Your task to perform on an android device: open app "Firefox Browser" (install if not already installed) and enter user name: "hashed@outlook.com" and password: "congestive" Image 0: 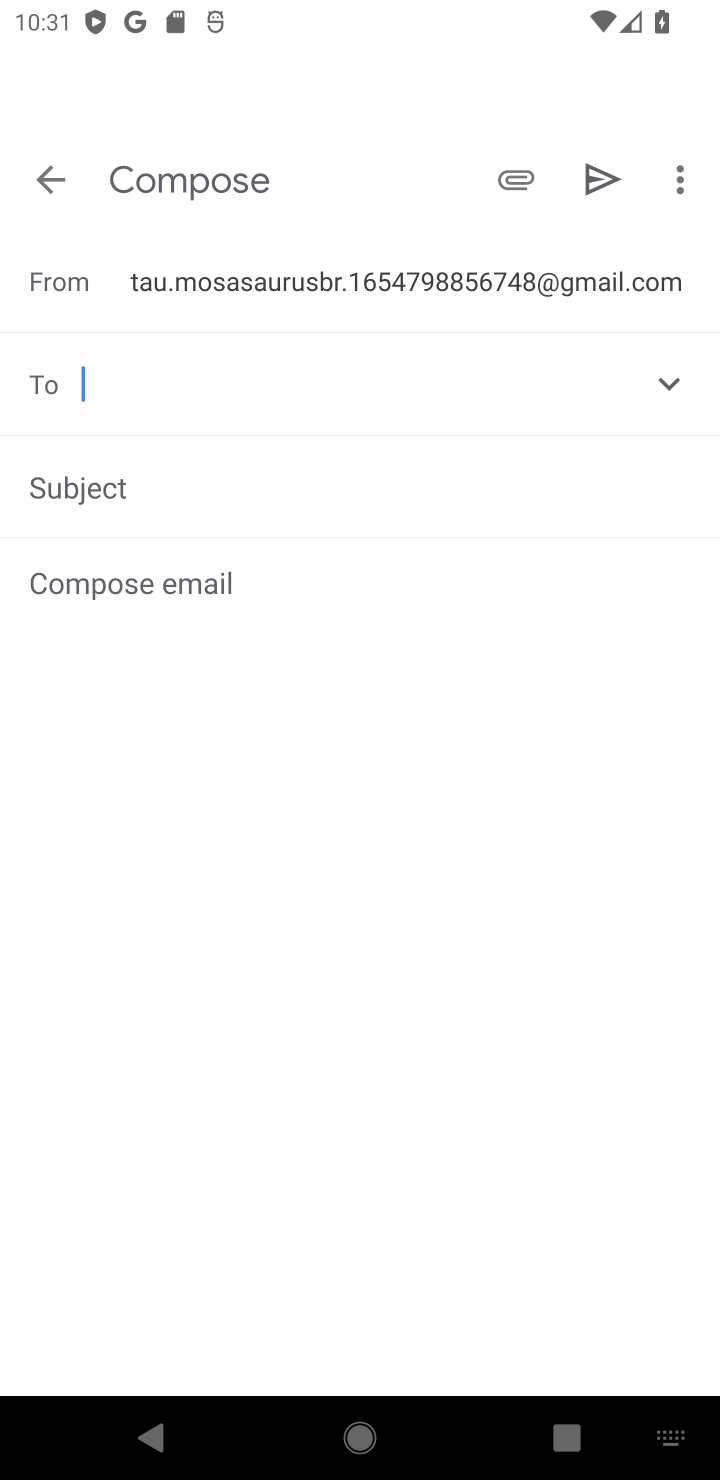
Step 0: press back button
Your task to perform on an android device: open app "Firefox Browser" (install if not already installed) and enter user name: "hashed@outlook.com" and password: "congestive" Image 1: 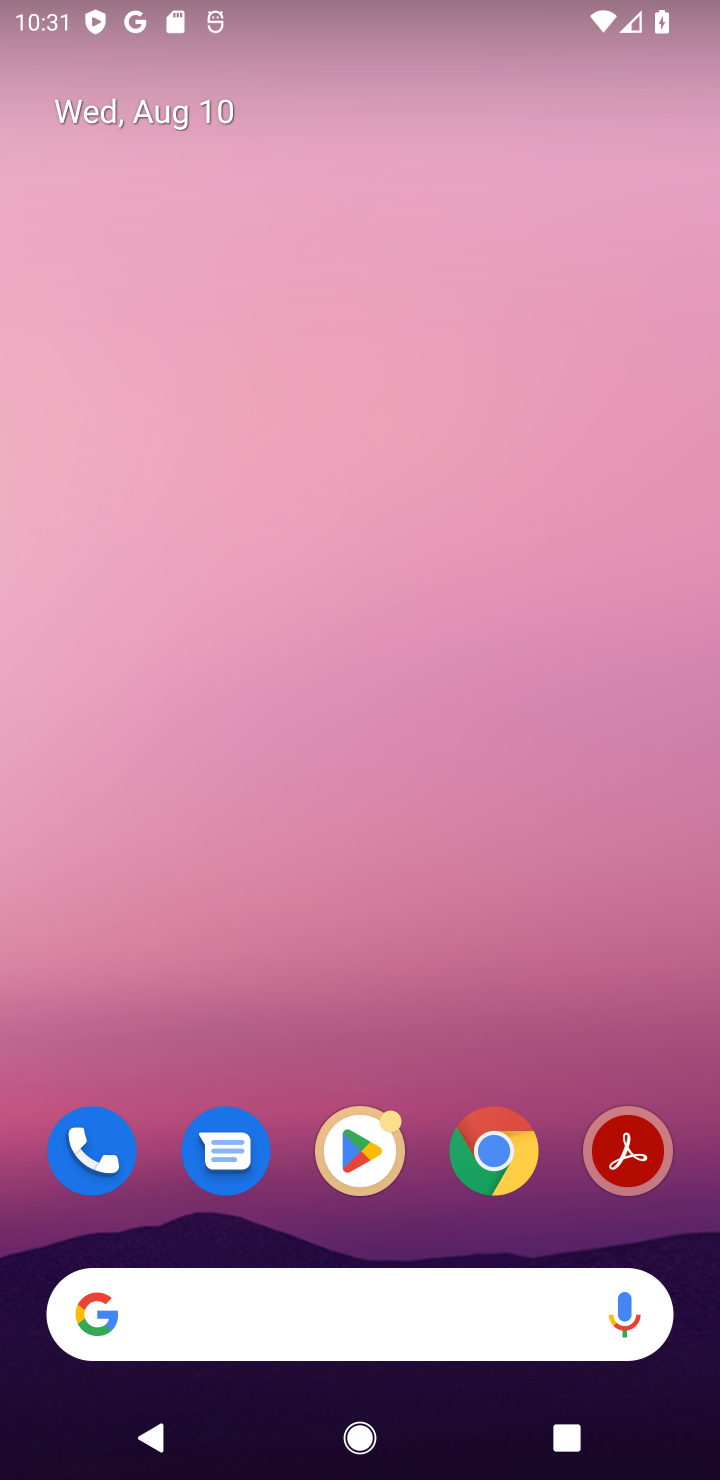
Step 1: press back button
Your task to perform on an android device: open app "Firefox Browser" (install if not already installed) and enter user name: "hashed@outlook.com" and password: "congestive" Image 2: 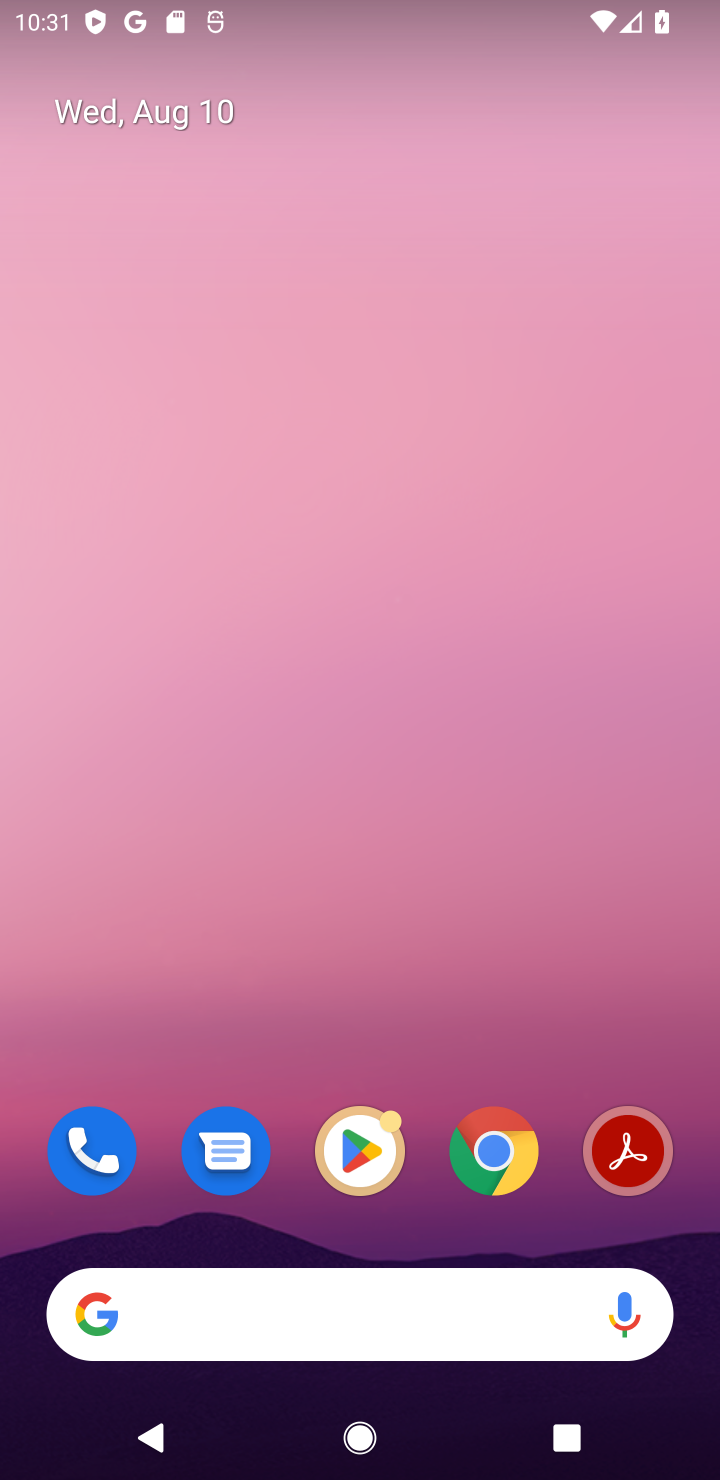
Step 2: click (359, 1148)
Your task to perform on an android device: open app "Firefox Browser" (install if not already installed) and enter user name: "hashed@outlook.com" and password: "congestive" Image 3: 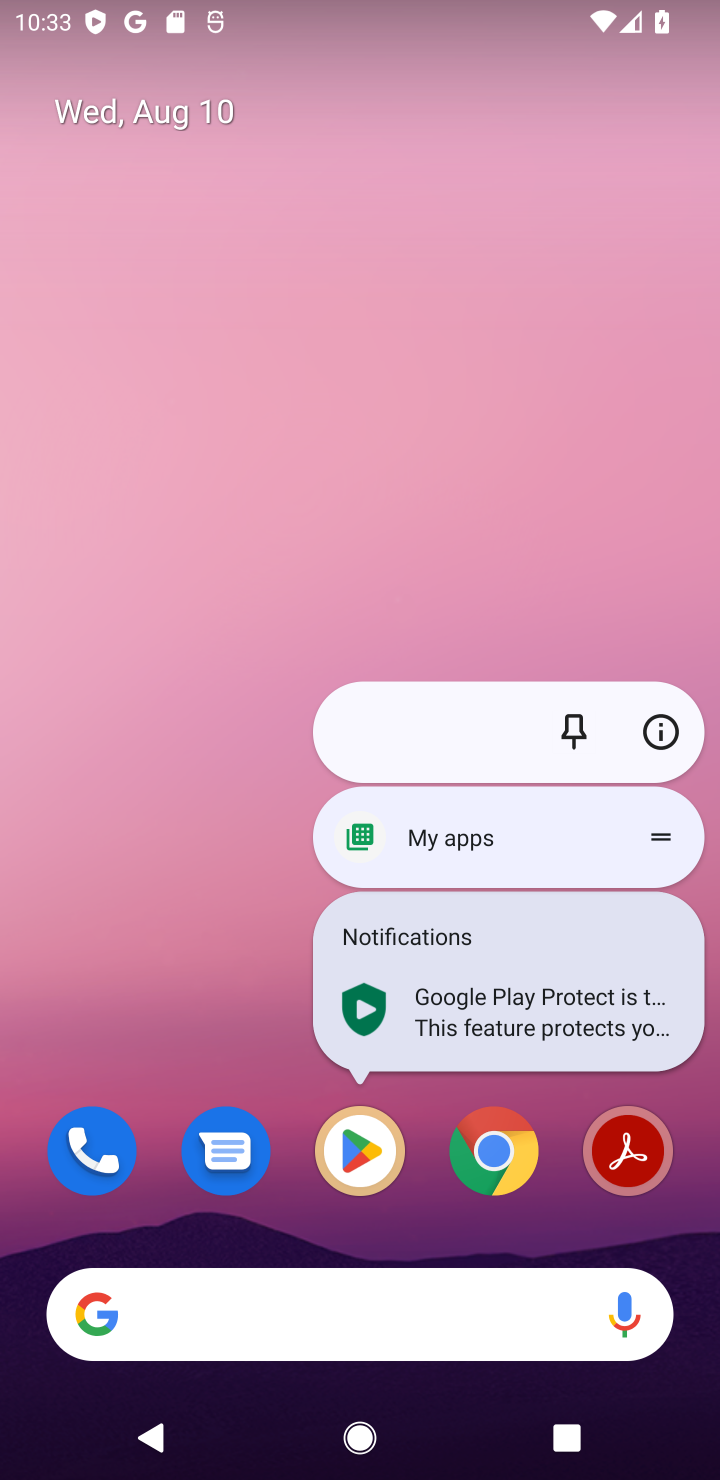
Step 3: click (339, 1149)
Your task to perform on an android device: open app "Firefox Browser" (install if not already installed) and enter user name: "hashed@outlook.com" and password: "congestive" Image 4: 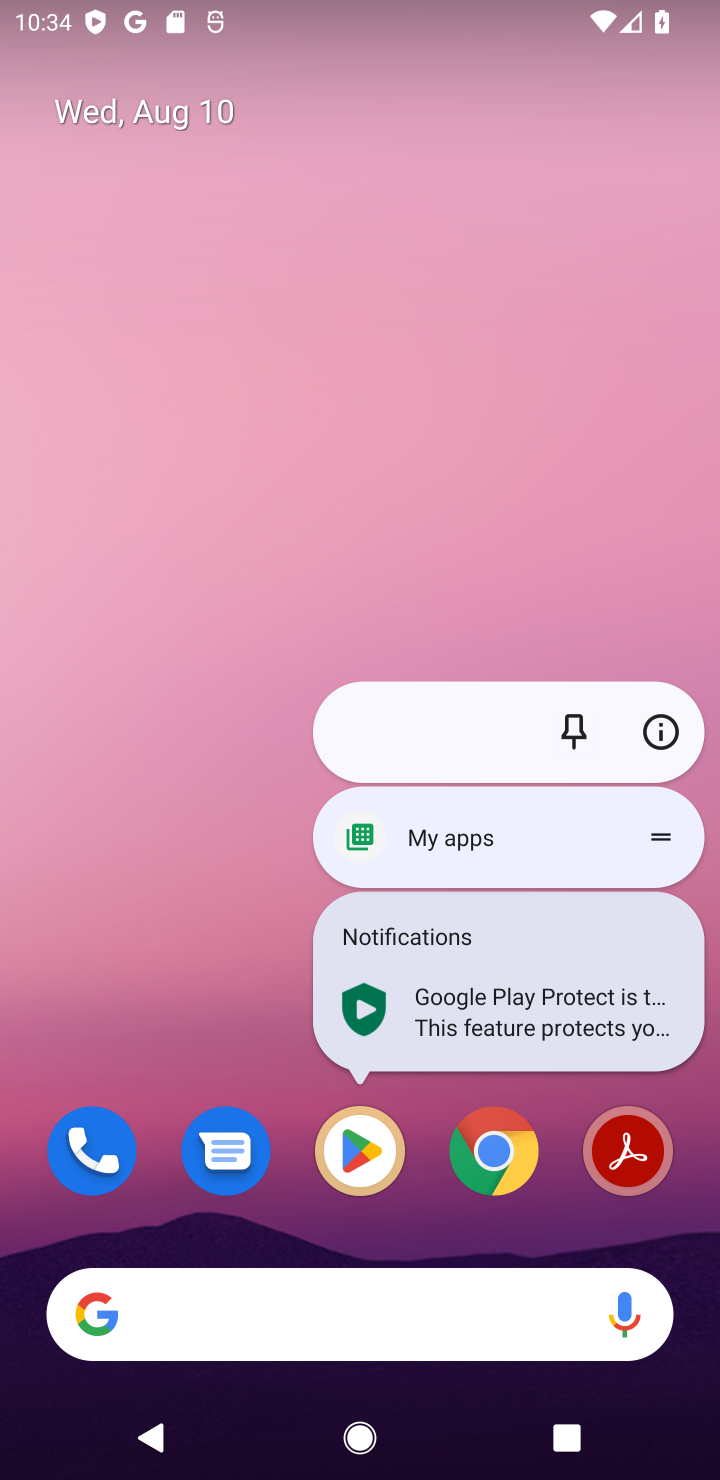
Step 4: click (351, 1141)
Your task to perform on an android device: open app "Firefox Browser" (install if not already installed) and enter user name: "hashed@outlook.com" and password: "congestive" Image 5: 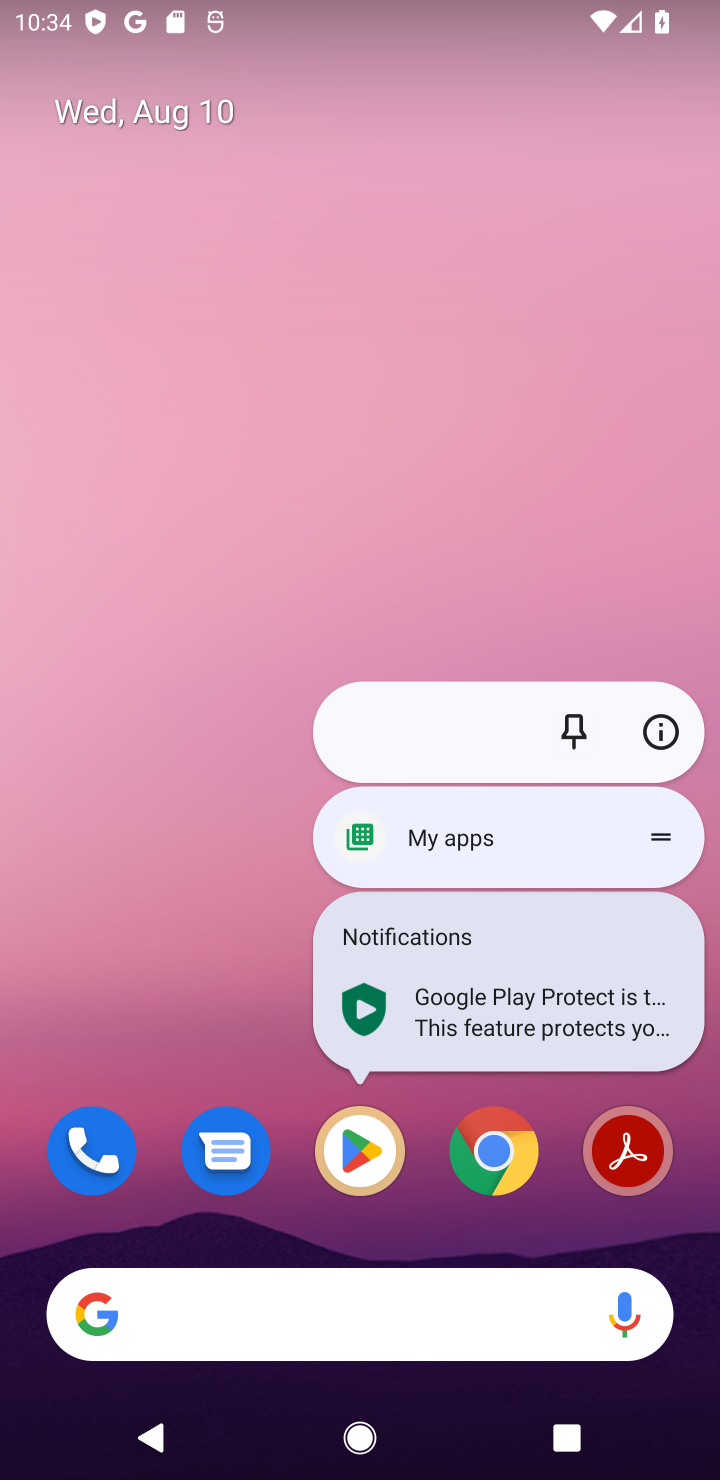
Step 5: click (365, 1163)
Your task to perform on an android device: open app "Firefox Browser" (install if not already installed) and enter user name: "hashed@outlook.com" and password: "congestive" Image 6: 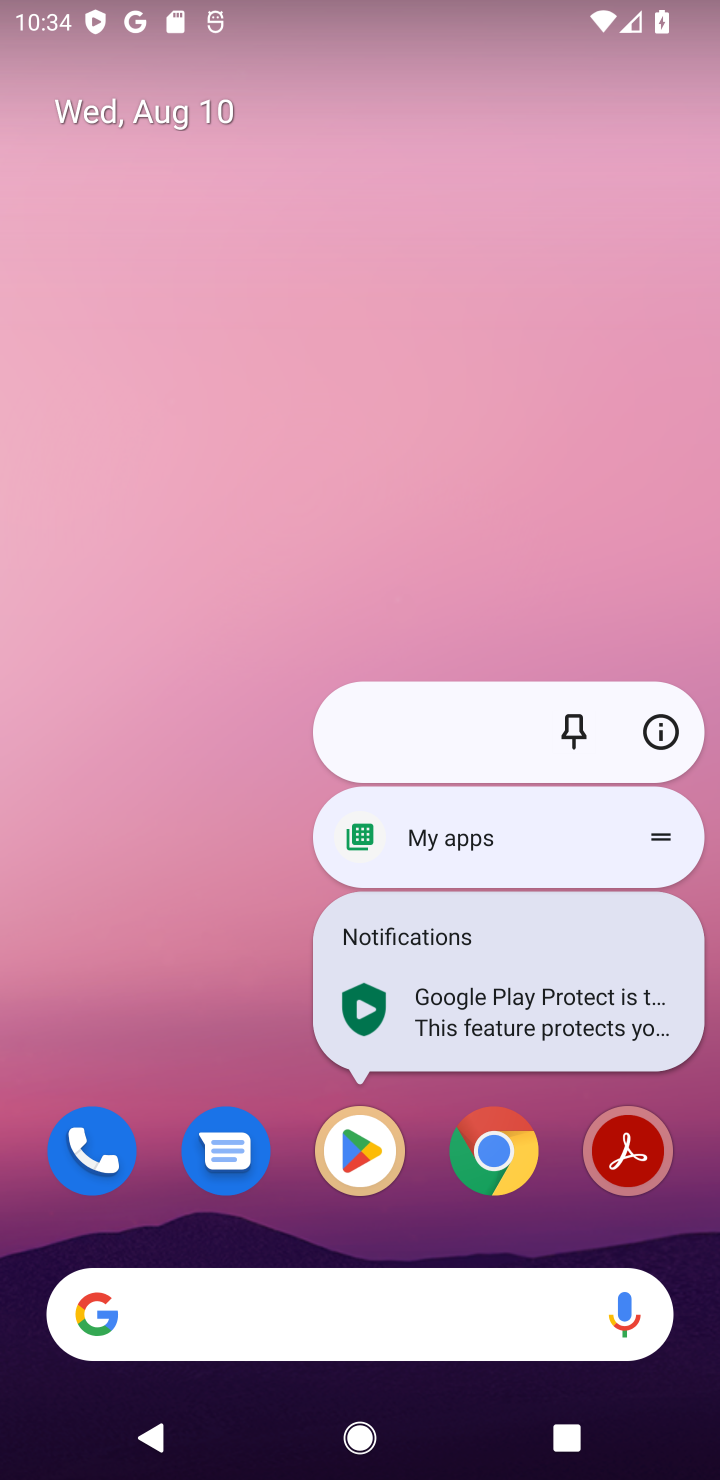
Step 6: click (371, 1142)
Your task to perform on an android device: open app "Firefox Browser" (install if not already installed) and enter user name: "hashed@outlook.com" and password: "congestive" Image 7: 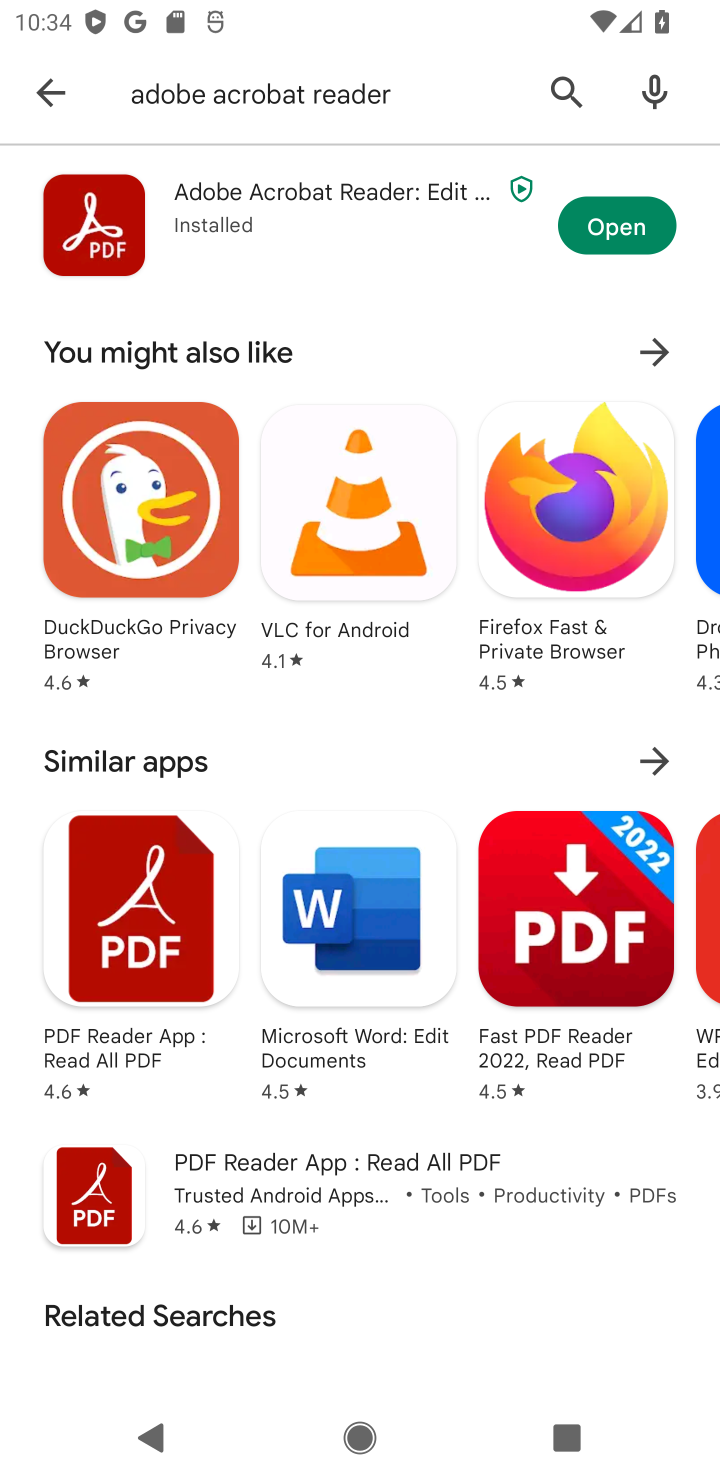
Step 7: click (568, 494)
Your task to perform on an android device: open app "Firefox Browser" (install if not already installed) and enter user name: "hashed@outlook.com" and password: "congestive" Image 8: 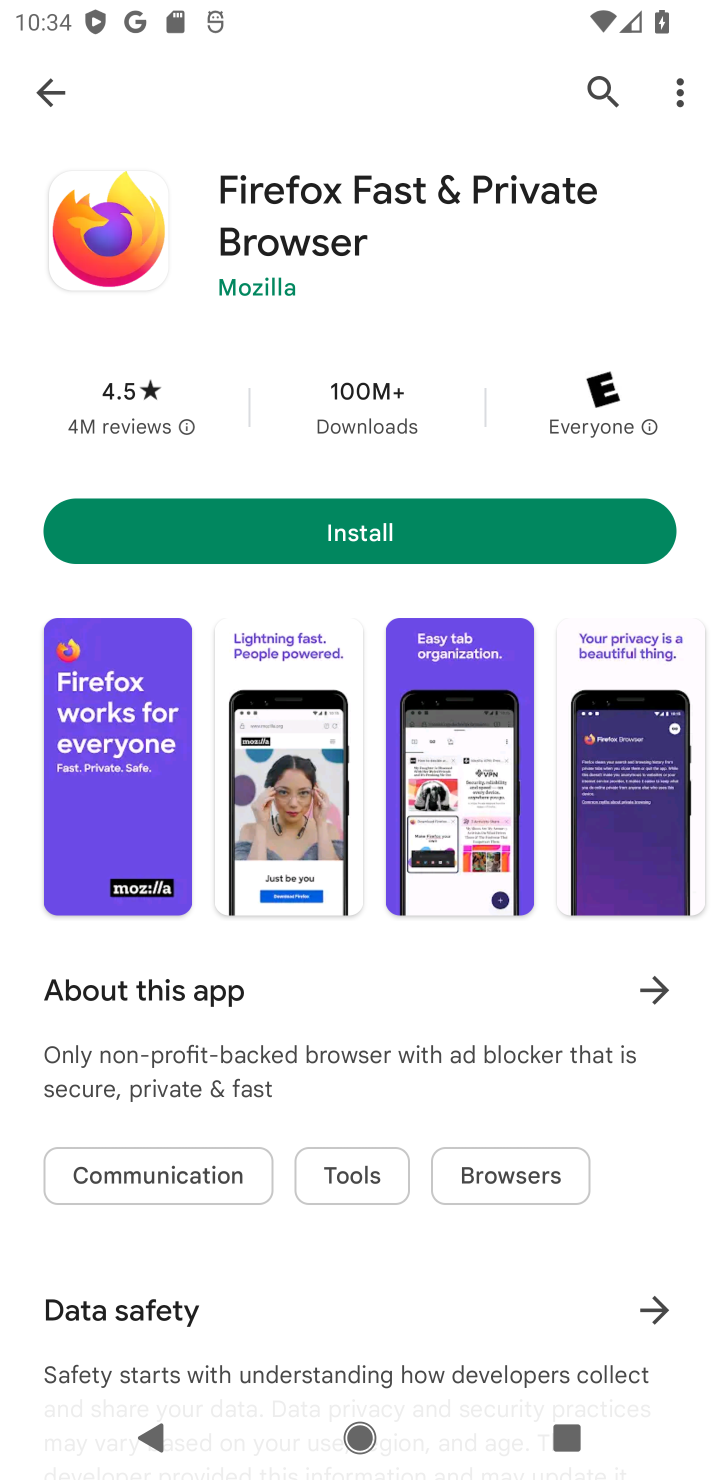
Step 8: click (448, 509)
Your task to perform on an android device: open app "Firefox Browser" (install if not already installed) and enter user name: "hashed@outlook.com" and password: "congestive" Image 9: 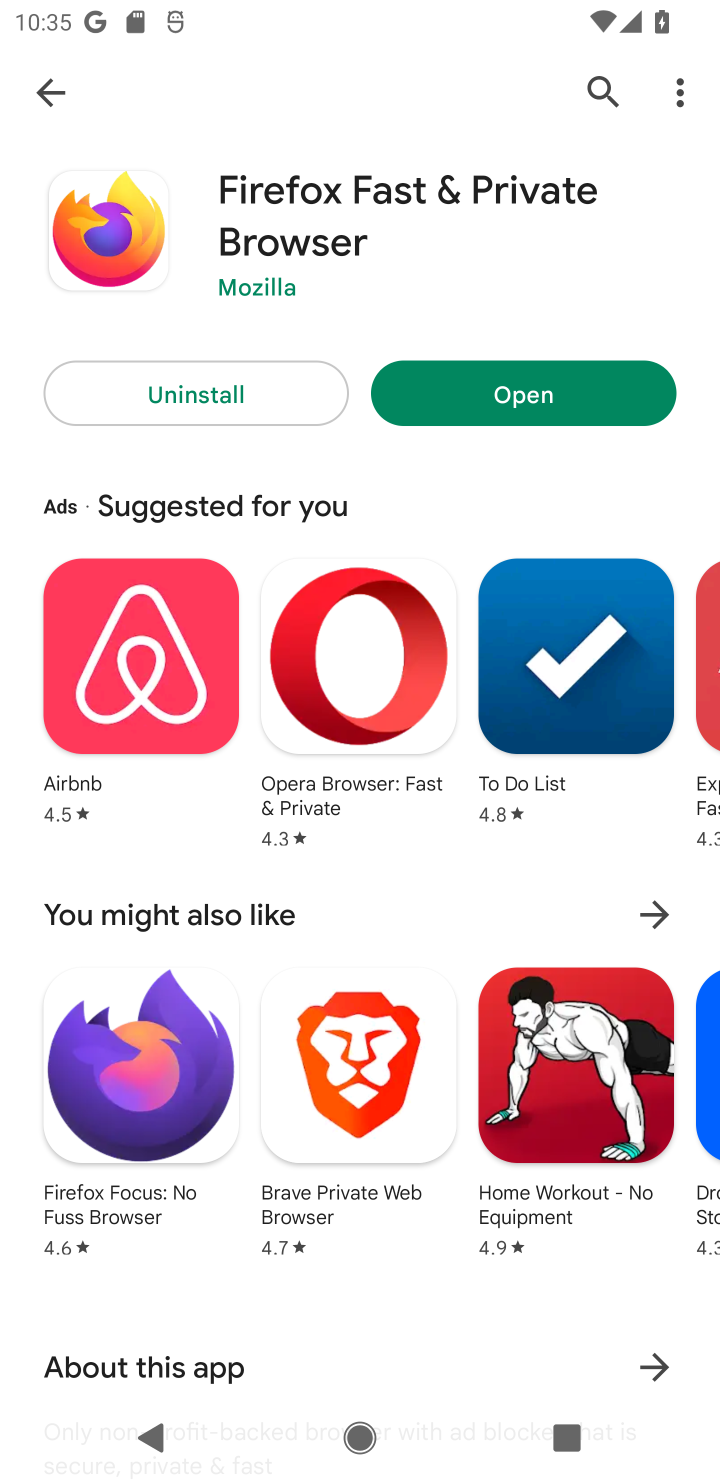
Step 9: click (536, 403)
Your task to perform on an android device: open app "Firefox Browser" (install if not already installed) and enter user name: "hashed@outlook.com" and password: "congestive" Image 10: 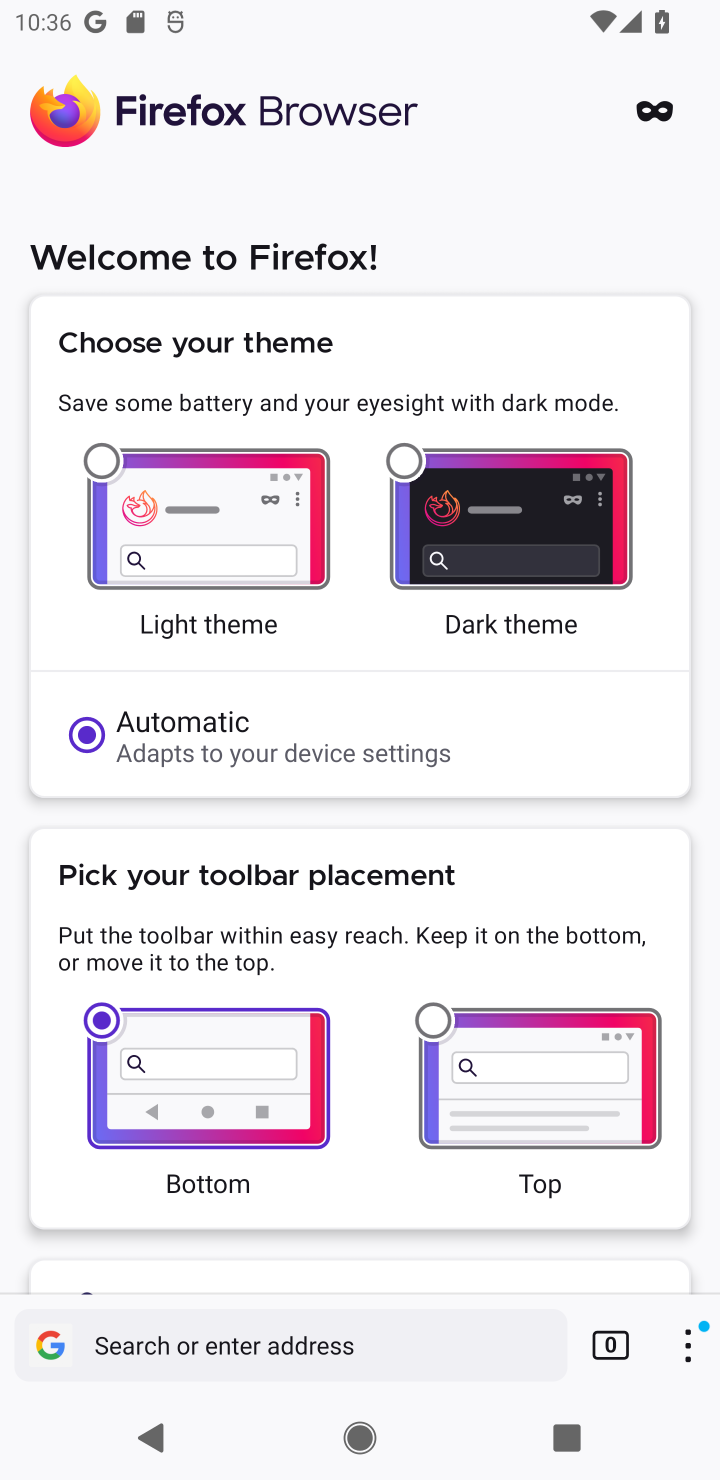
Step 10: task complete